Your task to perform on an android device: stop showing notifications on the lock screen Image 0: 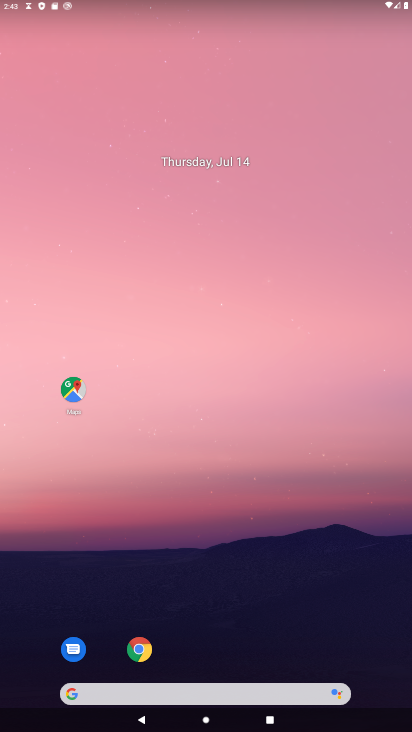
Step 0: click (409, 297)
Your task to perform on an android device: stop showing notifications on the lock screen Image 1: 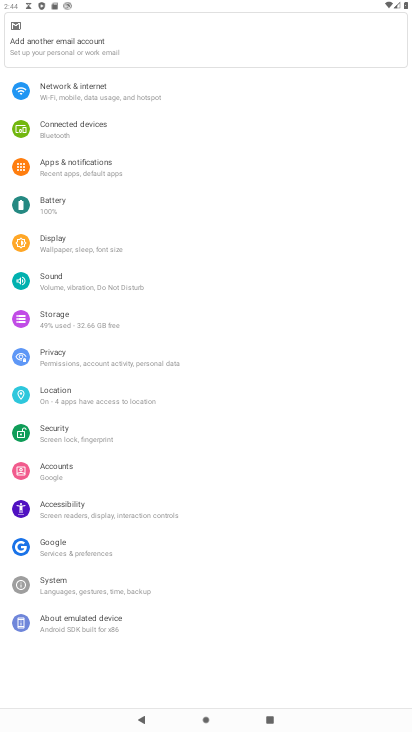
Step 1: press home button
Your task to perform on an android device: stop showing notifications on the lock screen Image 2: 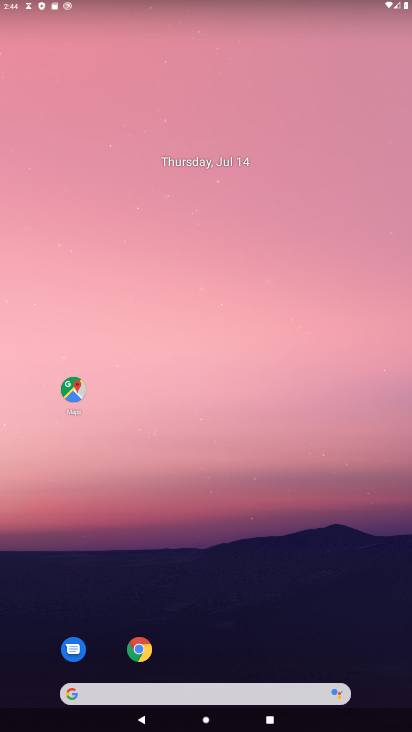
Step 2: drag from (209, 655) to (240, 6)
Your task to perform on an android device: stop showing notifications on the lock screen Image 3: 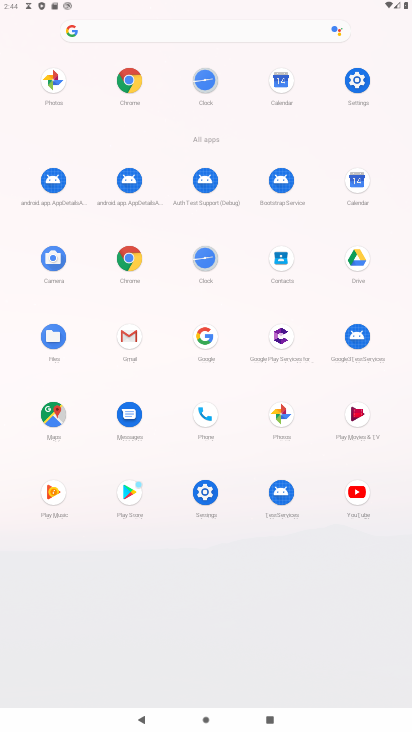
Step 3: click (207, 486)
Your task to perform on an android device: stop showing notifications on the lock screen Image 4: 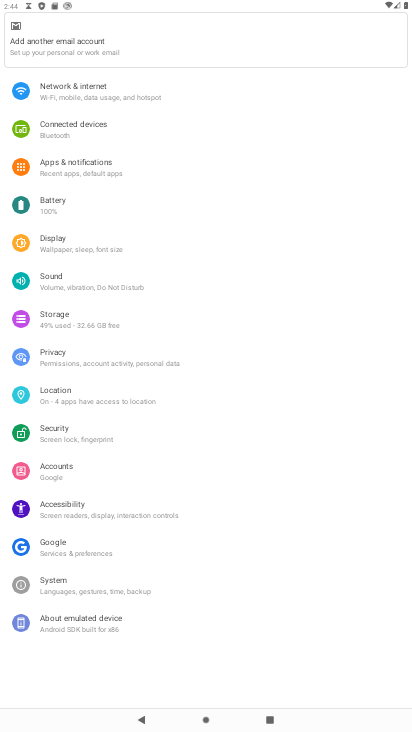
Step 4: click (105, 165)
Your task to perform on an android device: stop showing notifications on the lock screen Image 5: 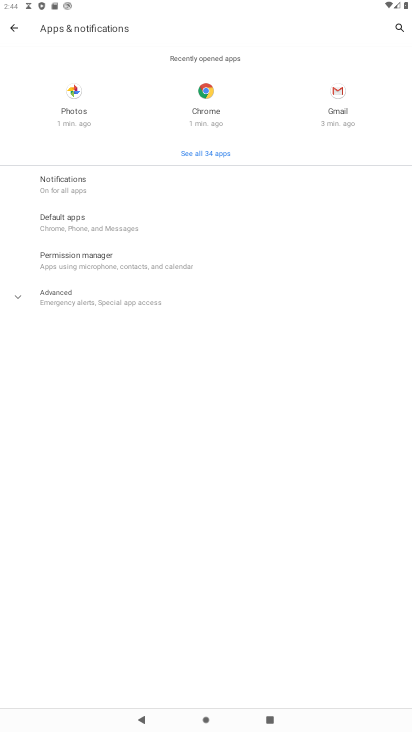
Step 5: click (83, 182)
Your task to perform on an android device: stop showing notifications on the lock screen Image 6: 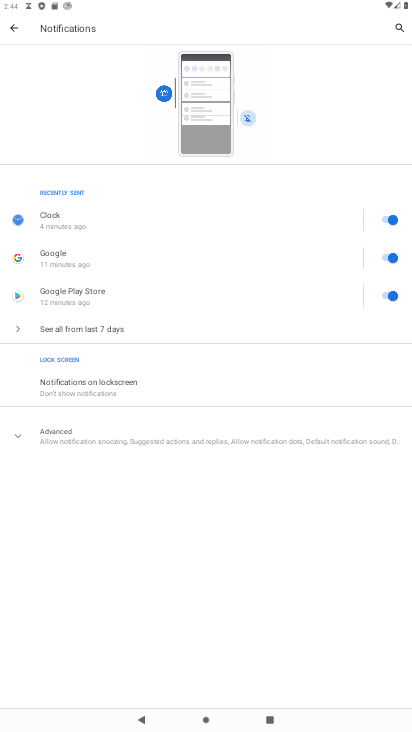
Step 6: click (141, 382)
Your task to perform on an android device: stop showing notifications on the lock screen Image 7: 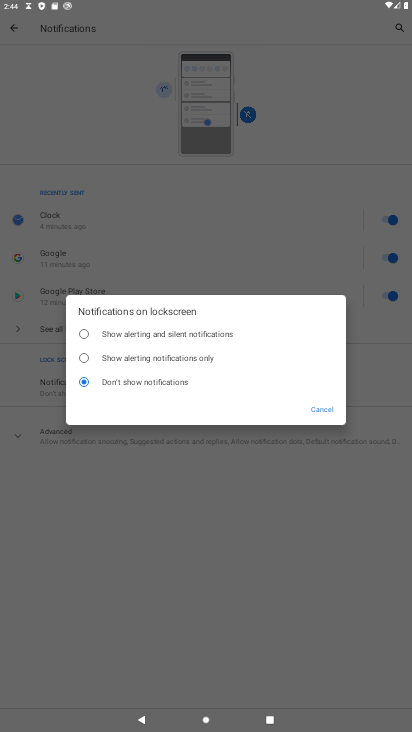
Step 7: task complete